Your task to perform on an android device: Open Google Chrome and click the shortcut for Amazon.com Image 0: 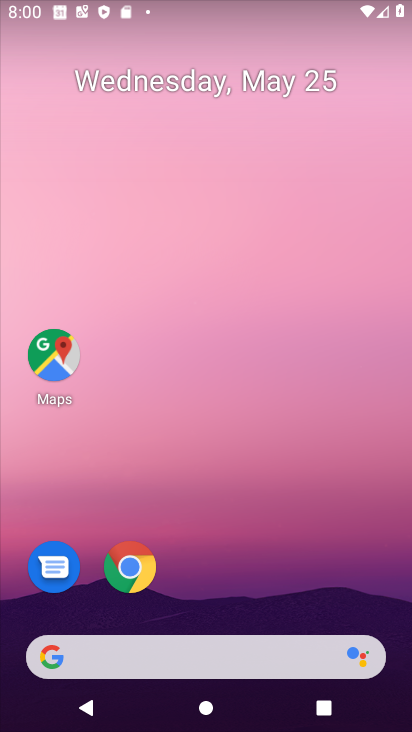
Step 0: click (139, 569)
Your task to perform on an android device: Open Google Chrome and click the shortcut for Amazon.com Image 1: 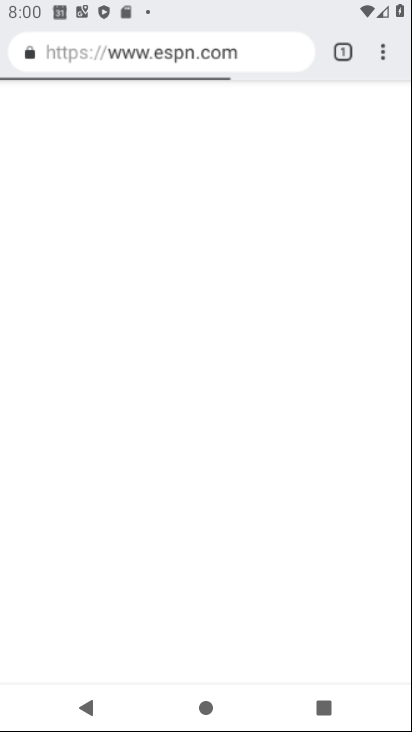
Step 1: click (262, 54)
Your task to perform on an android device: Open Google Chrome and click the shortcut for Amazon.com Image 2: 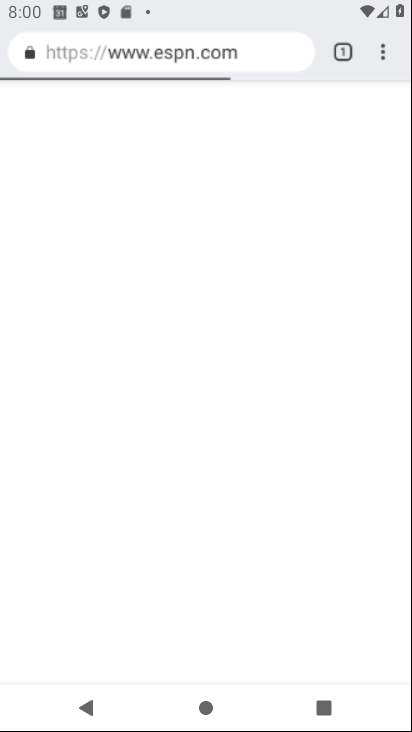
Step 2: click (339, 54)
Your task to perform on an android device: Open Google Chrome and click the shortcut for Amazon.com Image 3: 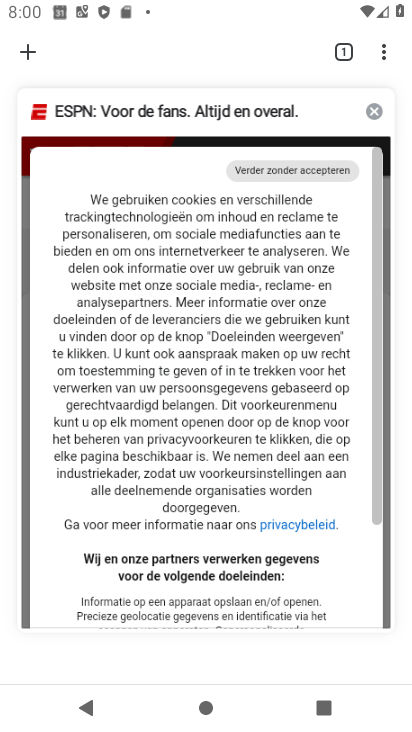
Step 3: click (30, 52)
Your task to perform on an android device: Open Google Chrome and click the shortcut for Amazon.com Image 4: 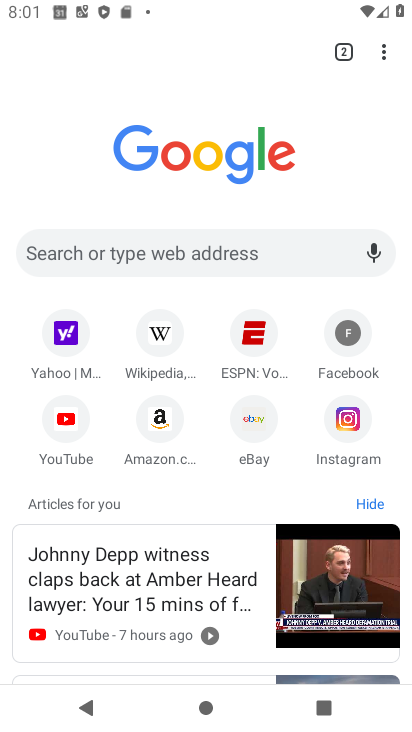
Step 4: click (141, 429)
Your task to perform on an android device: Open Google Chrome and click the shortcut for Amazon.com Image 5: 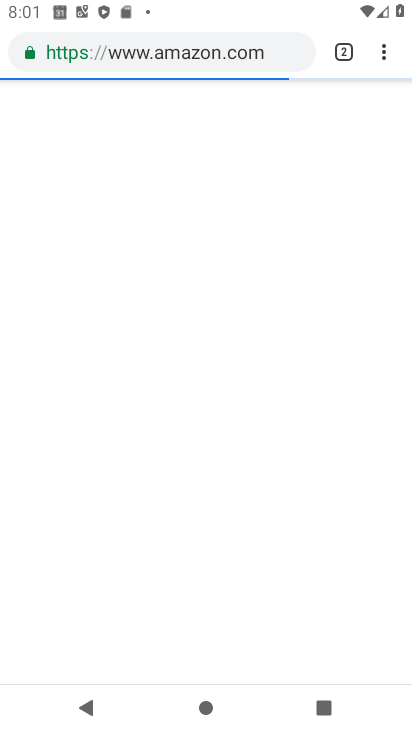
Step 5: task complete